Your task to perform on an android device: turn smart compose on in the gmail app Image 0: 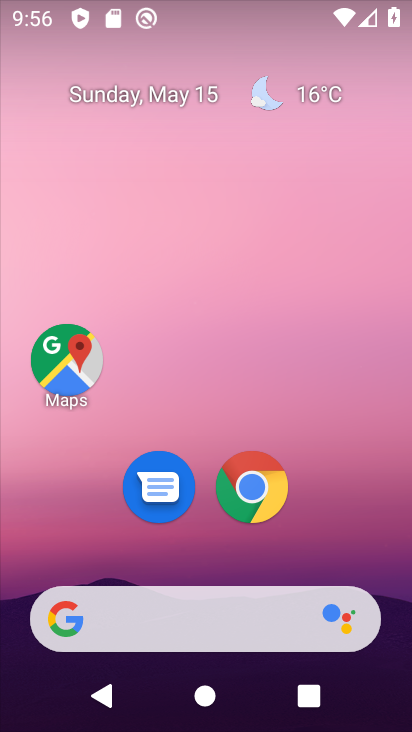
Step 0: drag from (399, 624) to (294, 62)
Your task to perform on an android device: turn smart compose on in the gmail app Image 1: 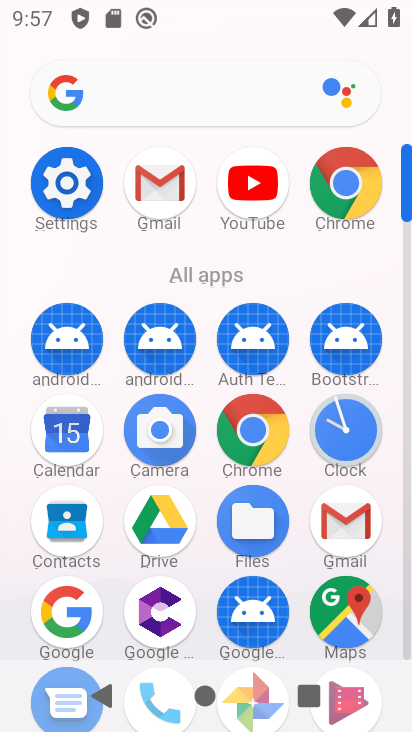
Step 1: click (405, 650)
Your task to perform on an android device: turn smart compose on in the gmail app Image 2: 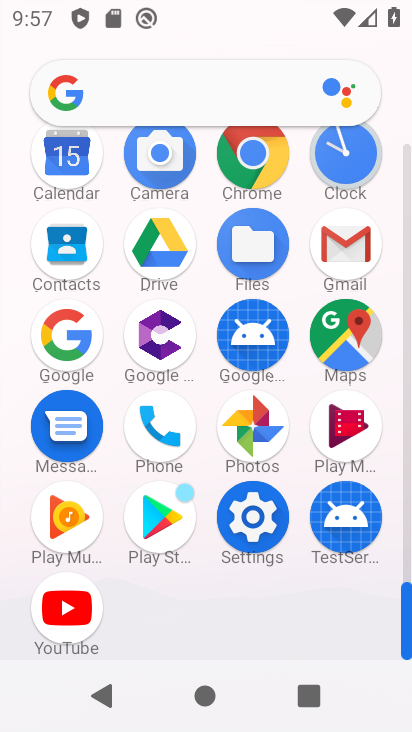
Step 2: click (345, 241)
Your task to perform on an android device: turn smart compose on in the gmail app Image 3: 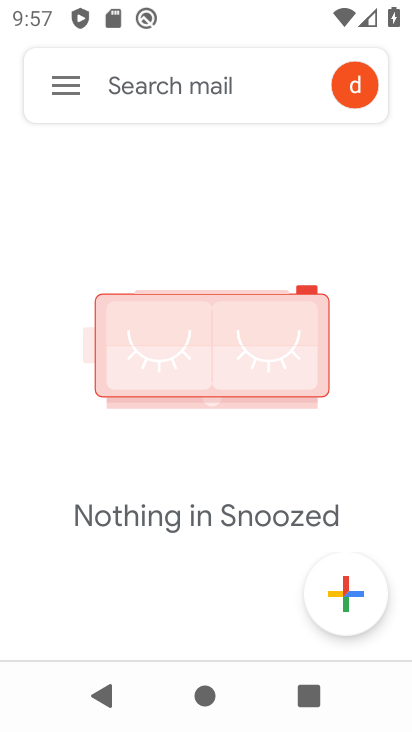
Step 3: click (68, 90)
Your task to perform on an android device: turn smart compose on in the gmail app Image 4: 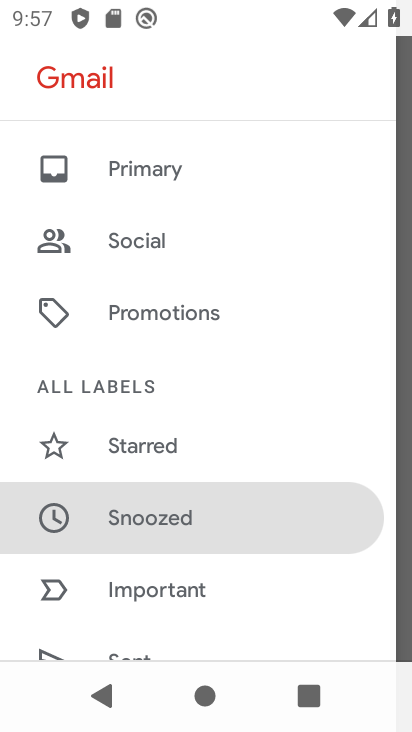
Step 4: drag from (314, 590) to (343, 198)
Your task to perform on an android device: turn smart compose on in the gmail app Image 5: 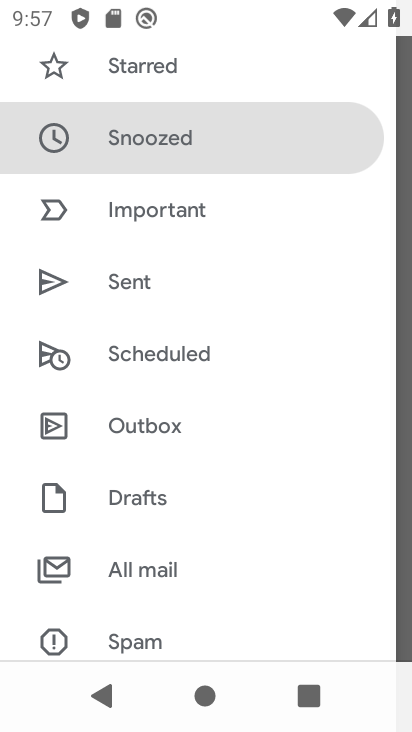
Step 5: drag from (278, 603) to (289, 370)
Your task to perform on an android device: turn smart compose on in the gmail app Image 6: 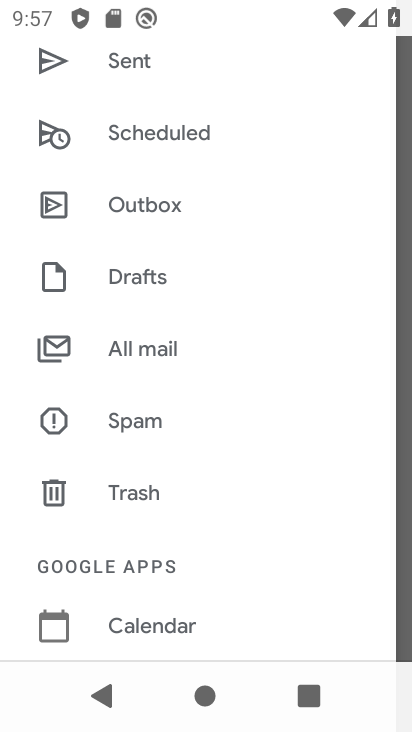
Step 6: drag from (237, 579) to (212, 152)
Your task to perform on an android device: turn smart compose on in the gmail app Image 7: 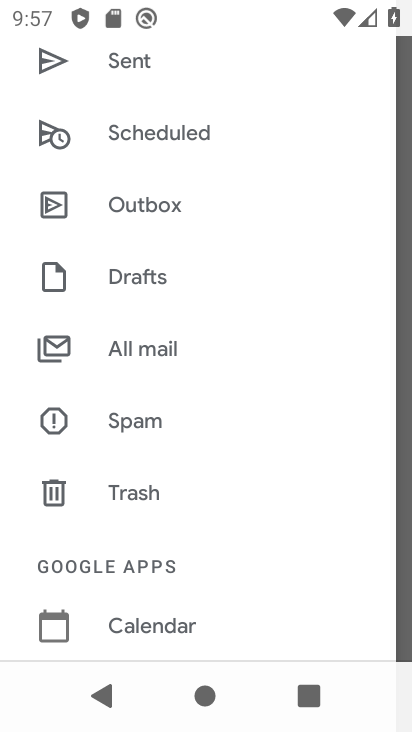
Step 7: drag from (240, 598) to (223, 176)
Your task to perform on an android device: turn smart compose on in the gmail app Image 8: 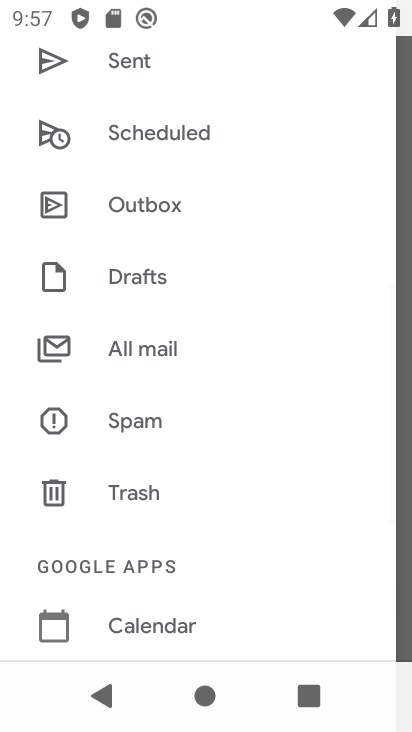
Step 8: drag from (231, 586) to (243, 149)
Your task to perform on an android device: turn smart compose on in the gmail app Image 9: 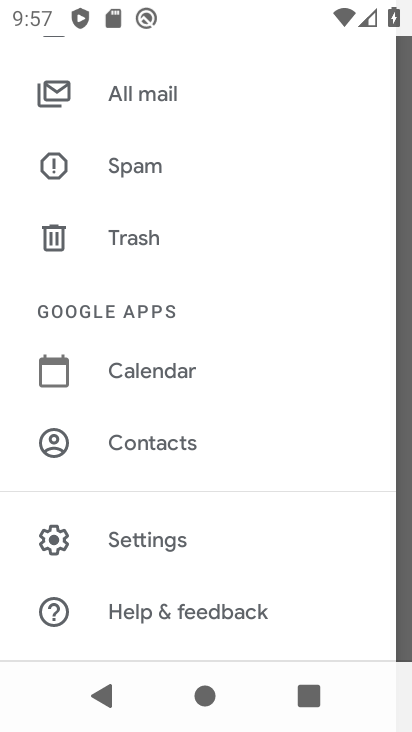
Step 9: click (129, 545)
Your task to perform on an android device: turn smart compose on in the gmail app Image 10: 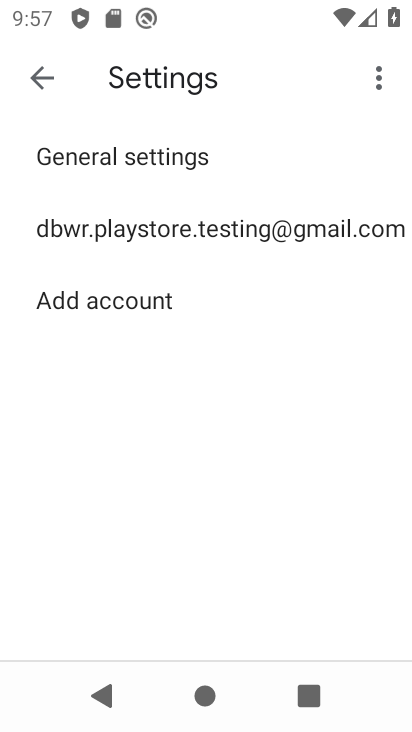
Step 10: click (152, 226)
Your task to perform on an android device: turn smart compose on in the gmail app Image 11: 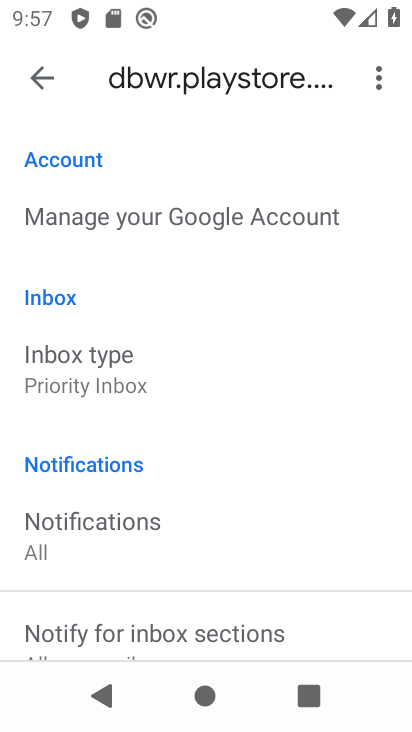
Step 11: task complete